Your task to perform on an android device: turn on the 24-hour format for clock Image 0: 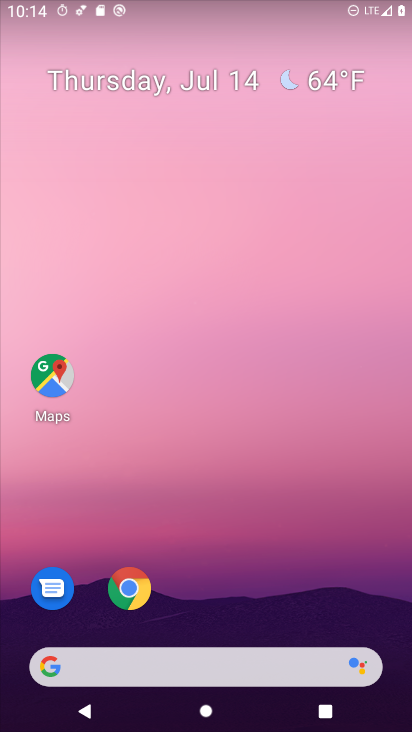
Step 0: drag from (298, 597) to (366, 135)
Your task to perform on an android device: turn on the 24-hour format for clock Image 1: 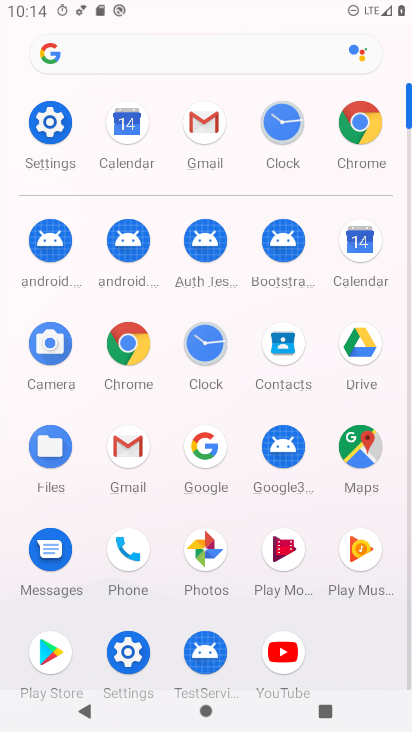
Step 1: click (215, 348)
Your task to perform on an android device: turn on the 24-hour format for clock Image 2: 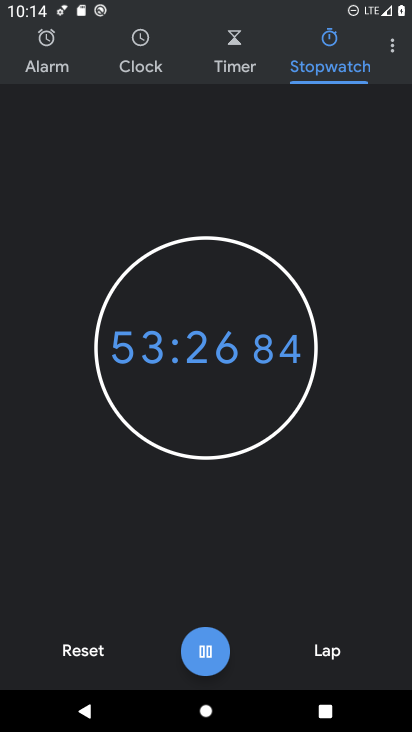
Step 2: click (394, 49)
Your task to perform on an android device: turn on the 24-hour format for clock Image 3: 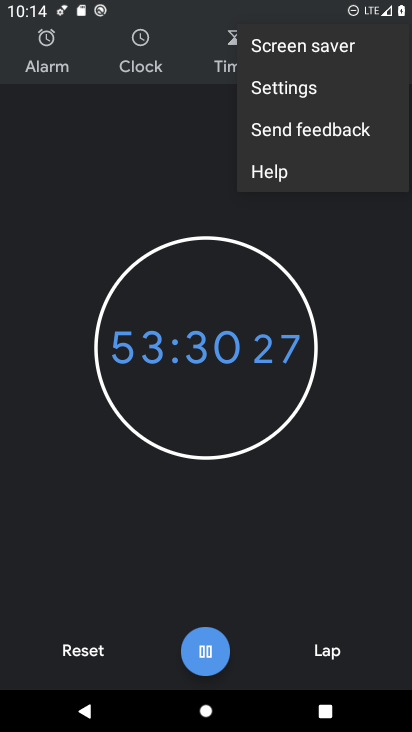
Step 3: click (321, 94)
Your task to perform on an android device: turn on the 24-hour format for clock Image 4: 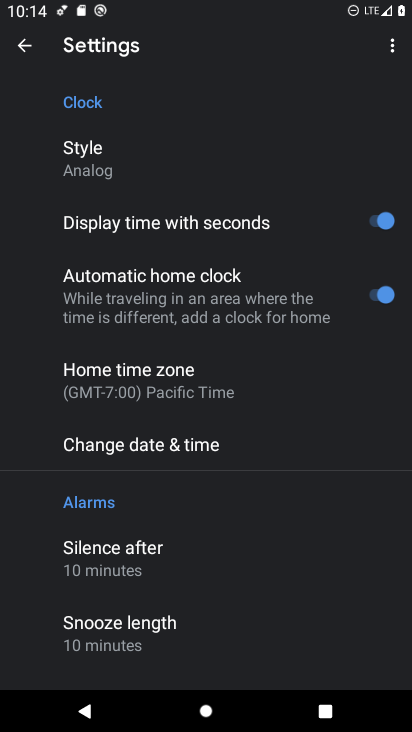
Step 4: drag from (338, 467) to (354, 393)
Your task to perform on an android device: turn on the 24-hour format for clock Image 5: 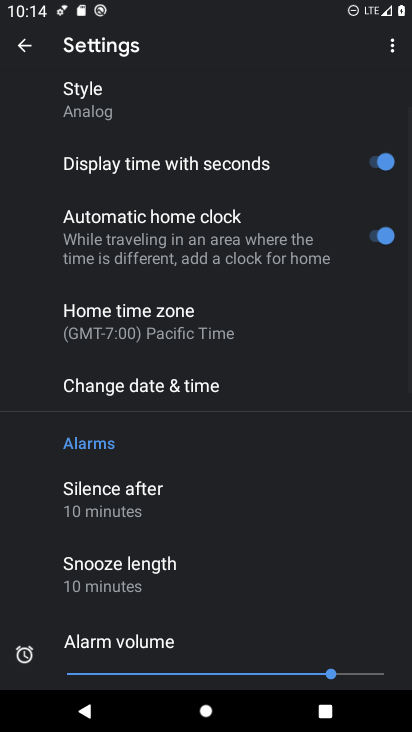
Step 5: drag from (350, 487) to (353, 384)
Your task to perform on an android device: turn on the 24-hour format for clock Image 6: 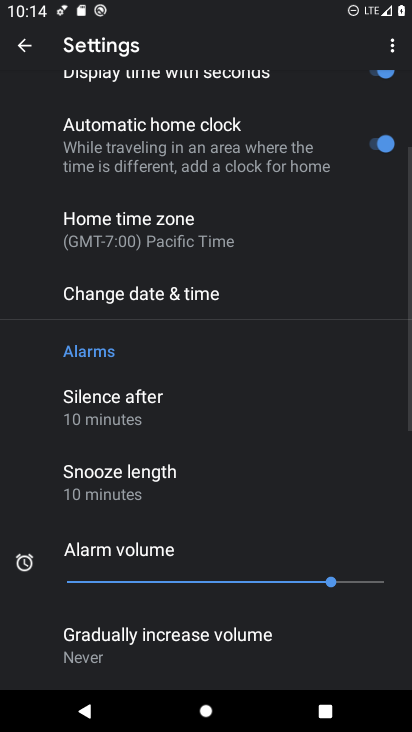
Step 6: drag from (345, 470) to (355, 392)
Your task to perform on an android device: turn on the 24-hour format for clock Image 7: 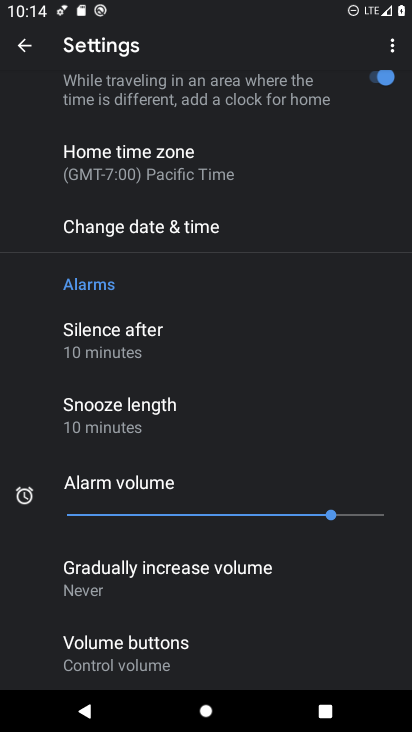
Step 7: drag from (334, 539) to (360, 398)
Your task to perform on an android device: turn on the 24-hour format for clock Image 8: 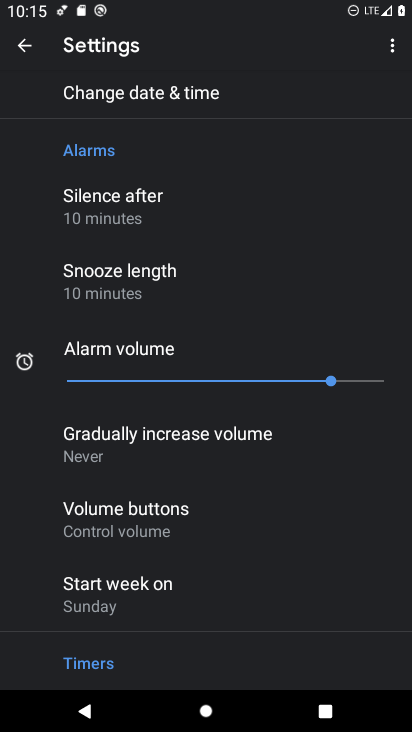
Step 8: drag from (333, 514) to (332, 386)
Your task to perform on an android device: turn on the 24-hour format for clock Image 9: 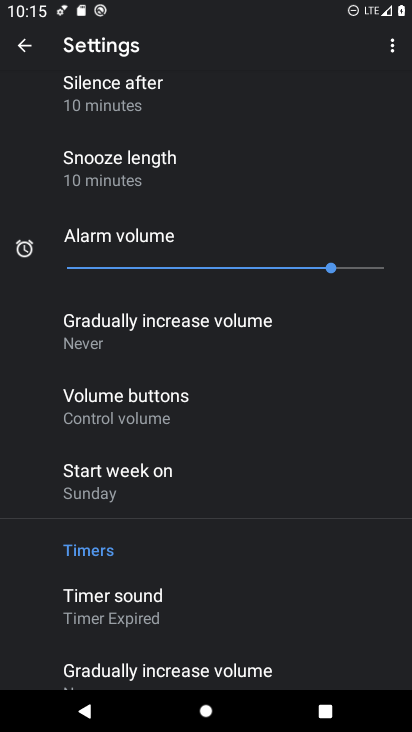
Step 9: drag from (323, 519) to (321, 405)
Your task to perform on an android device: turn on the 24-hour format for clock Image 10: 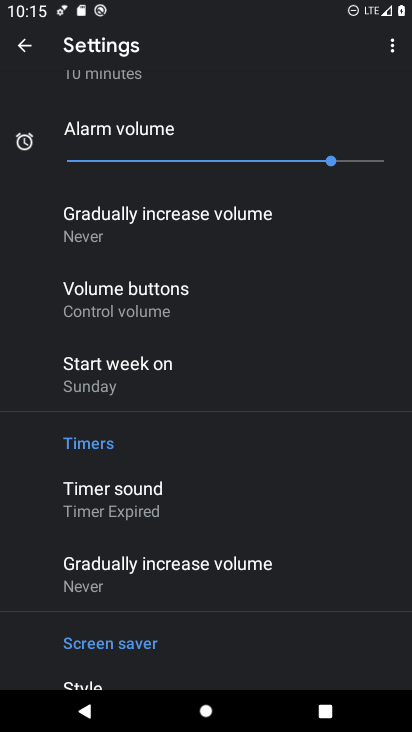
Step 10: drag from (346, 514) to (348, 398)
Your task to perform on an android device: turn on the 24-hour format for clock Image 11: 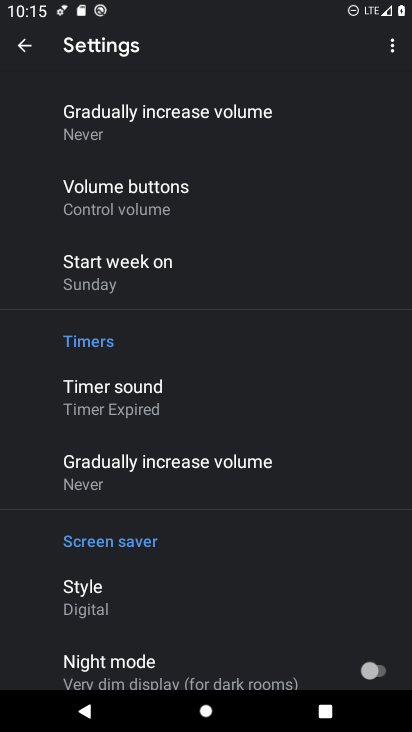
Step 11: drag from (345, 231) to (338, 356)
Your task to perform on an android device: turn on the 24-hour format for clock Image 12: 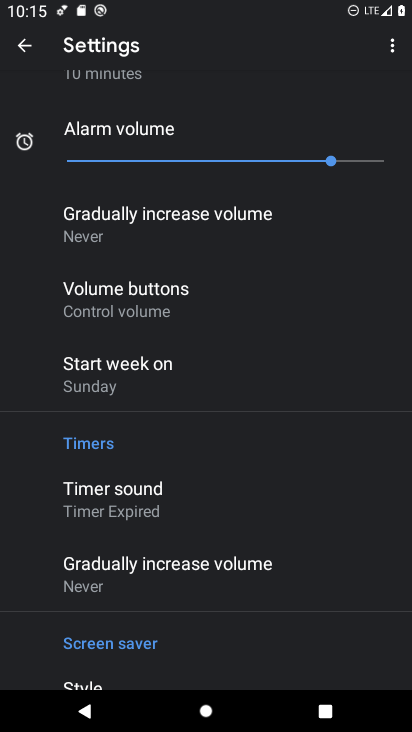
Step 12: drag from (368, 203) to (358, 335)
Your task to perform on an android device: turn on the 24-hour format for clock Image 13: 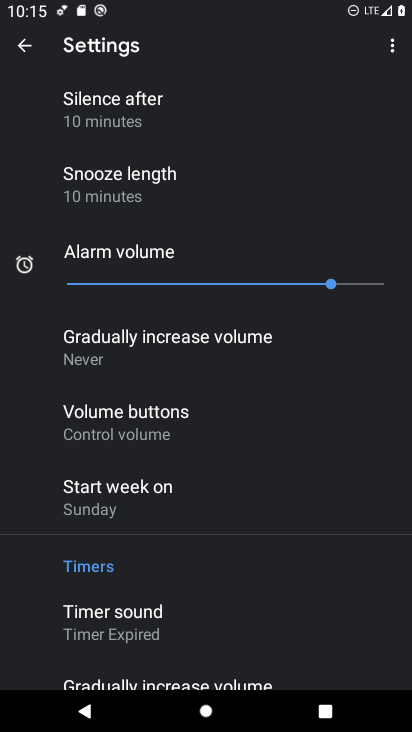
Step 13: drag from (359, 189) to (360, 288)
Your task to perform on an android device: turn on the 24-hour format for clock Image 14: 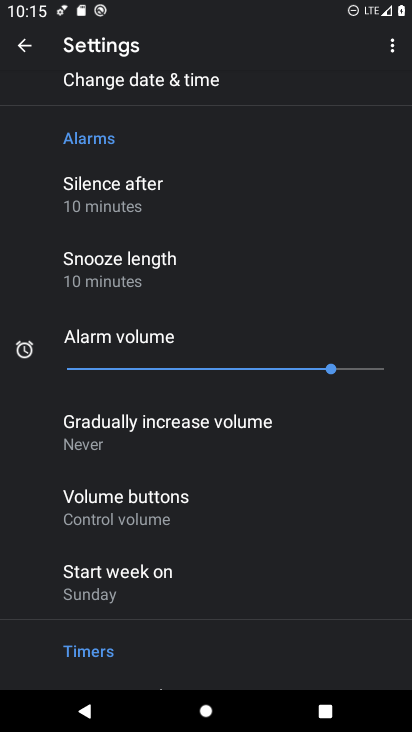
Step 14: drag from (362, 181) to (364, 279)
Your task to perform on an android device: turn on the 24-hour format for clock Image 15: 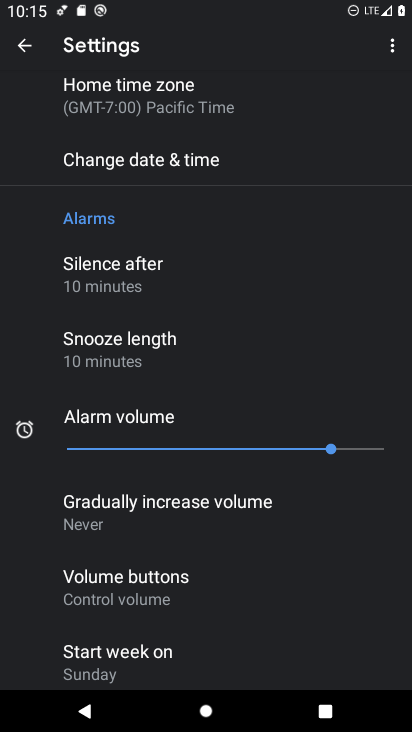
Step 15: drag from (362, 214) to (363, 410)
Your task to perform on an android device: turn on the 24-hour format for clock Image 16: 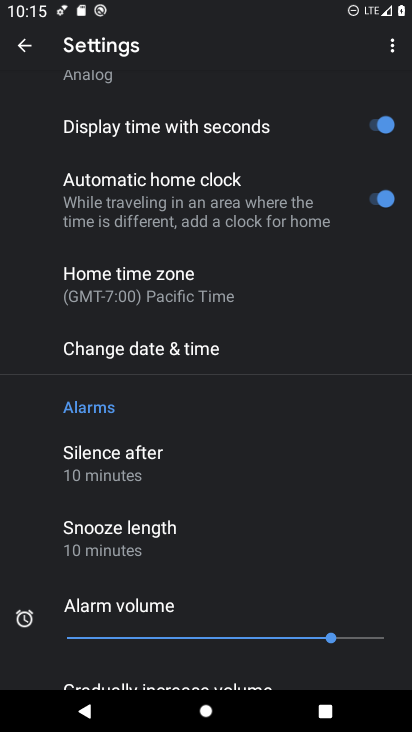
Step 16: drag from (336, 285) to (335, 419)
Your task to perform on an android device: turn on the 24-hour format for clock Image 17: 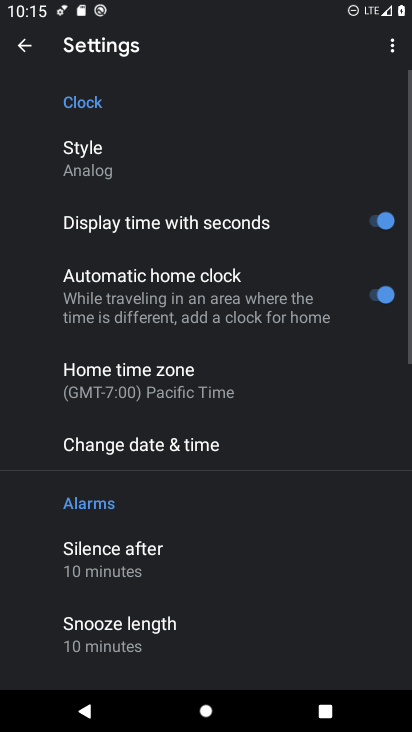
Step 17: click (308, 444)
Your task to perform on an android device: turn on the 24-hour format for clock Image 18: 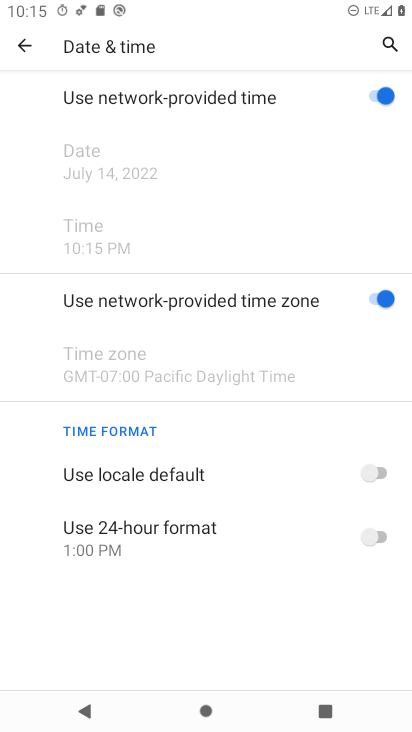
Step 18: click (369, 529)
Your task to perform on an android device: turn on the 24-hour format for clock Image 19: 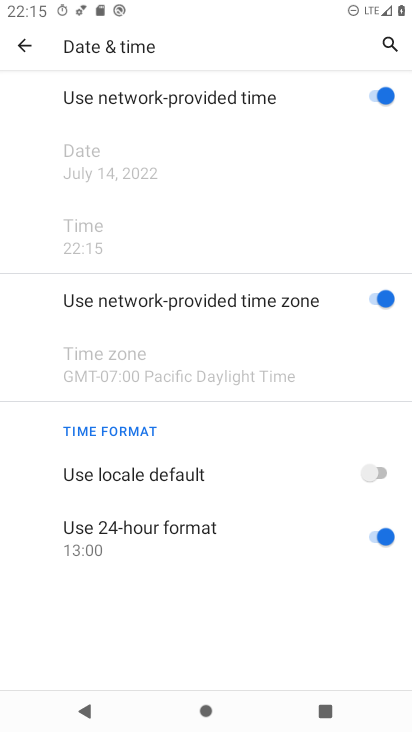
Step 19: task complete